Your task to perform on an android device: Show me recent news Image 0: 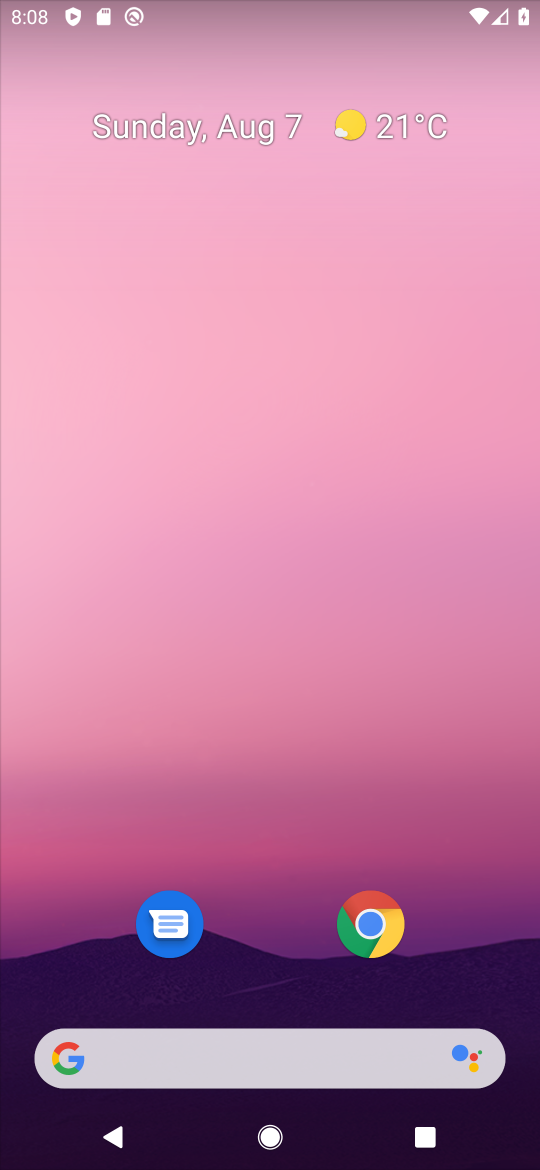
Step 0: click (371, 1065)
Your task to perform on an android device: Show me recent news Image 1: 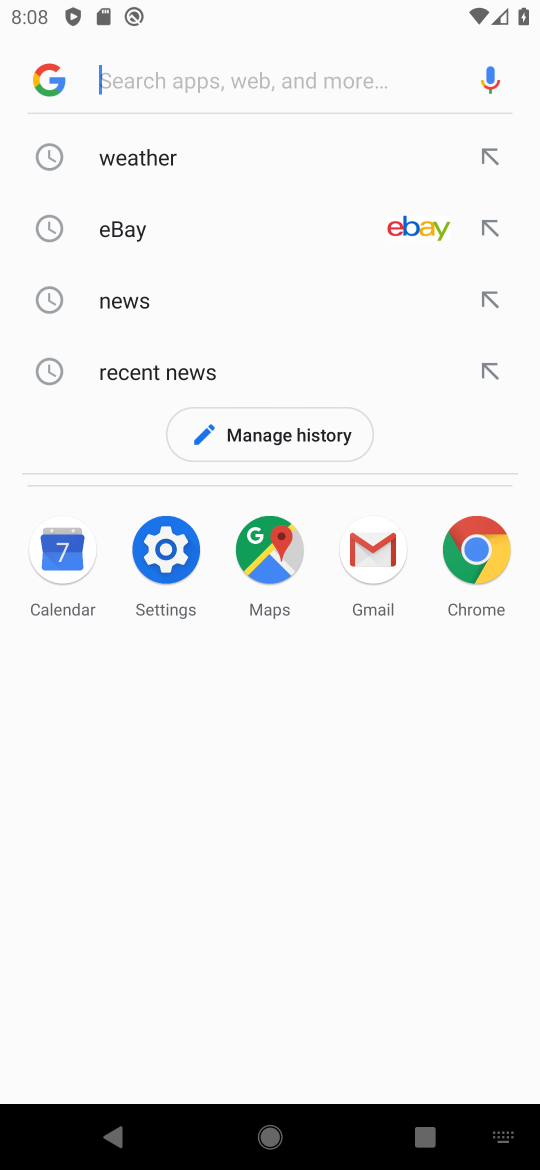
Step 1: click (135, 299)
Your task to perform on an android device: Show me recent news Image 2: 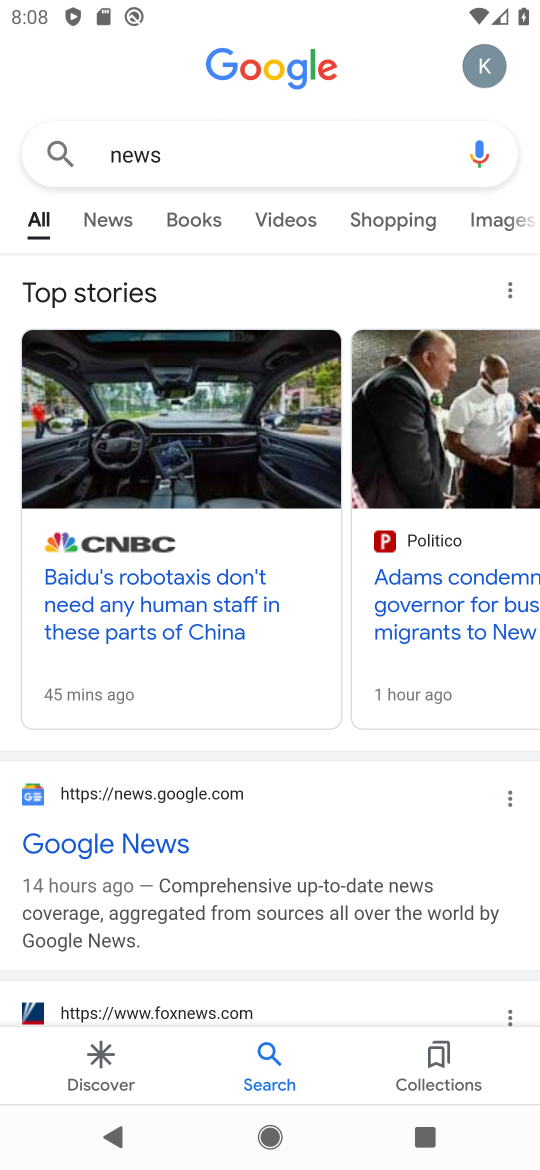
Step 2: click (117, 216)
Your task to perform on an android device: Show me recent news Image 3: 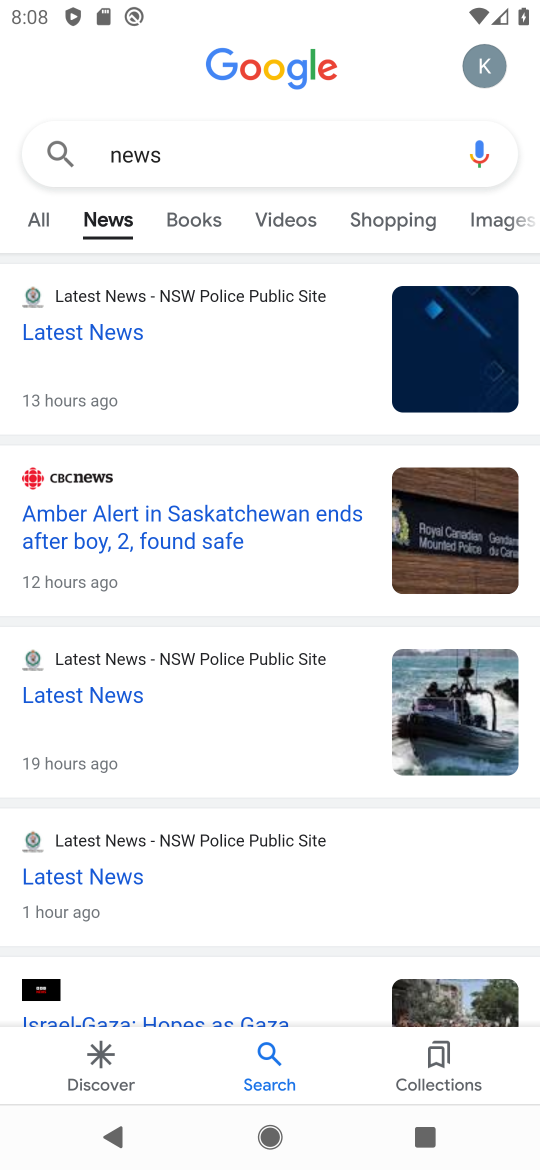
Step 3: task complete